Your task to perform on an android device: See recent photos Image 0: 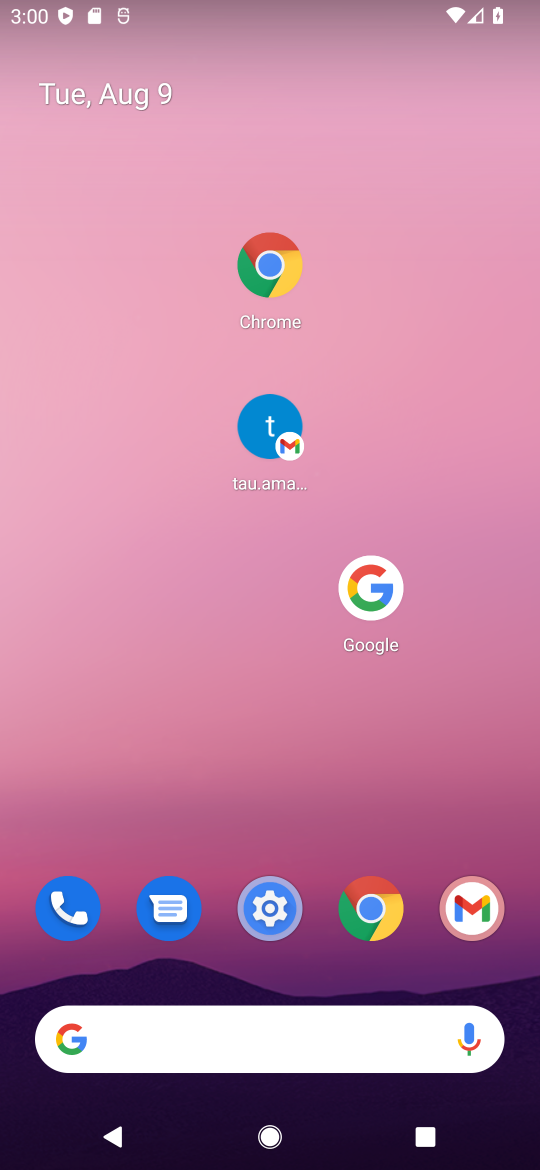
Step 0: drag from (365, 1067) to (345, 257)
Your task to perform on an android device: See recent photos Image 1: 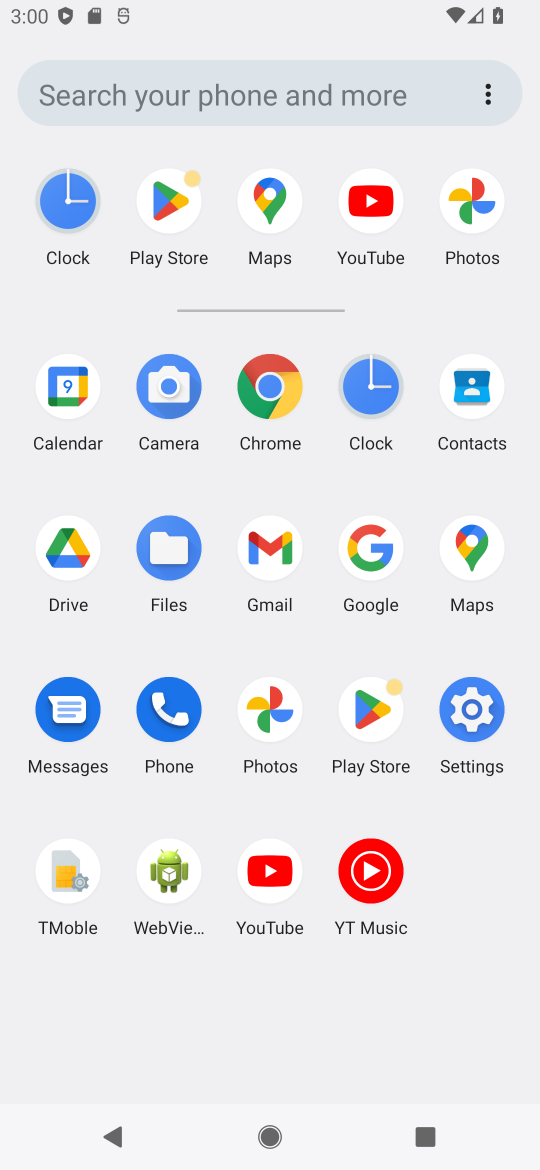
Step 1: click (281, 690)
Your task to perform on an android device: See recent photos Image 2: 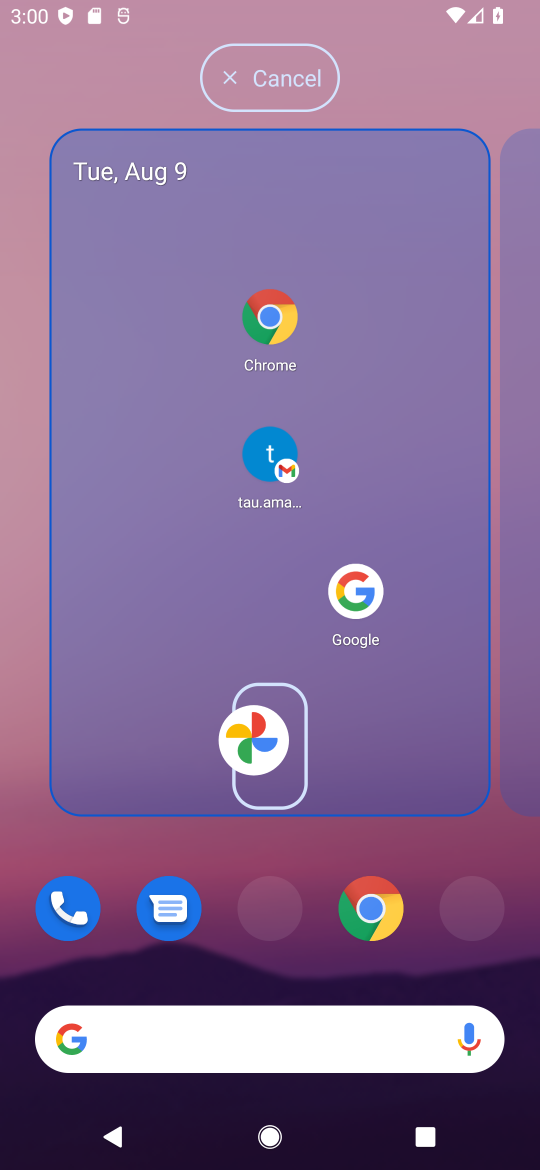
Step 2: click (264, 720)
Your task to perform on an android device: See recent photos Image 3: 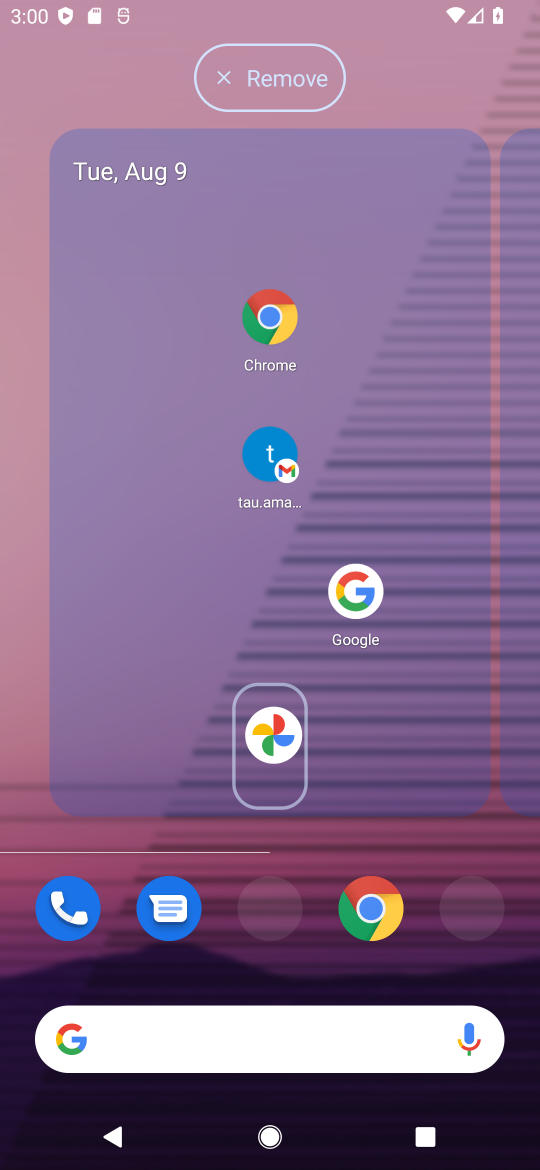
Step 3: click (293, 741)
Your task to perform on an android device: See recent photos Image 4: 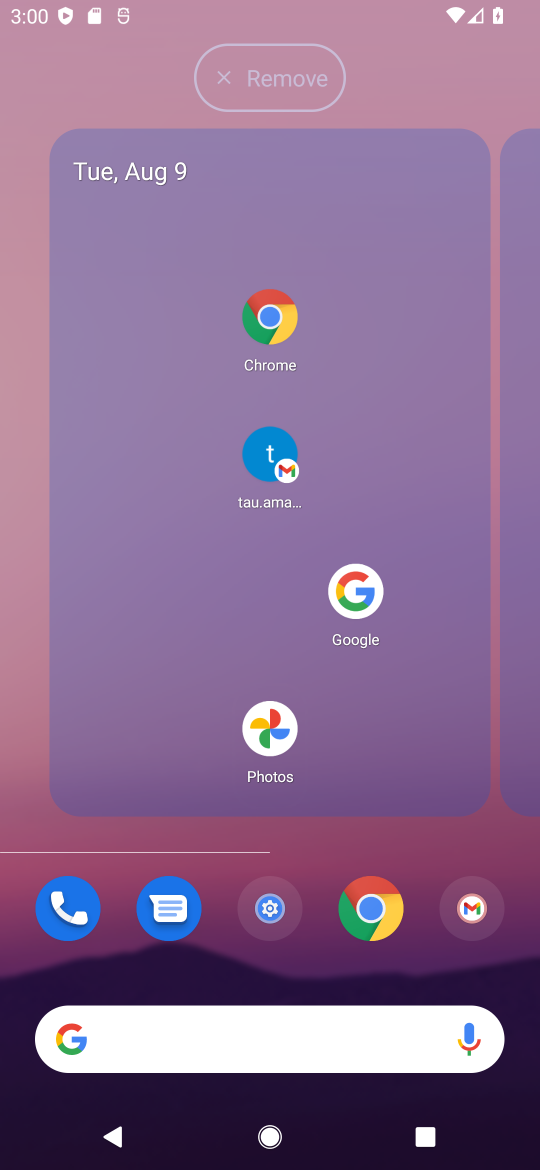
Step 4: drag from (319, 912) to (368, 482)
Your task to perform on an android device: See recent photos Image 5: 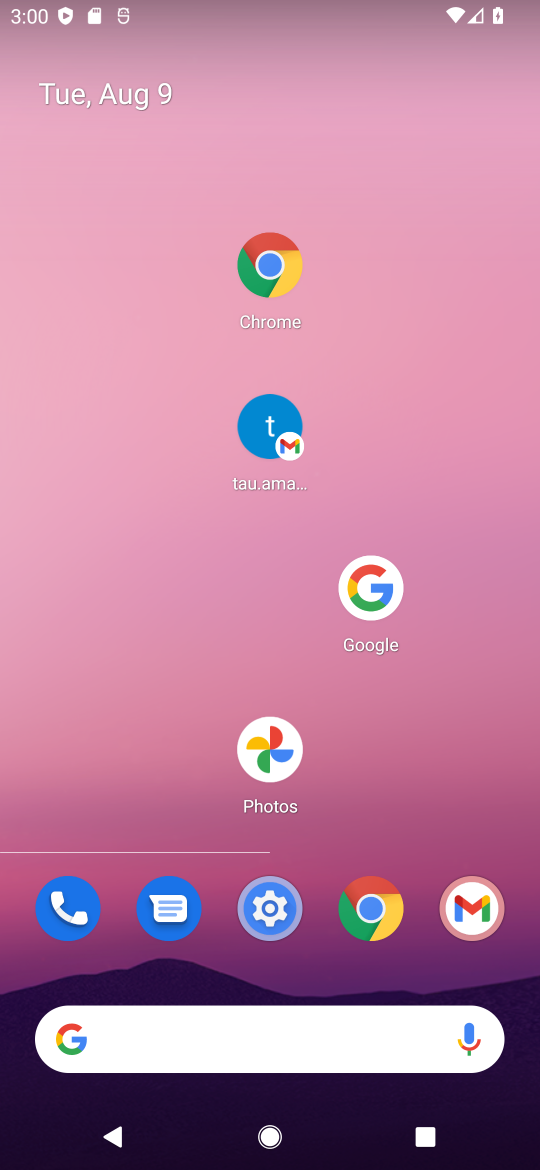
Step 5: drag from (376, 576) to (355, 346)
Your task to perform on an android device: See recent photos Image 6: 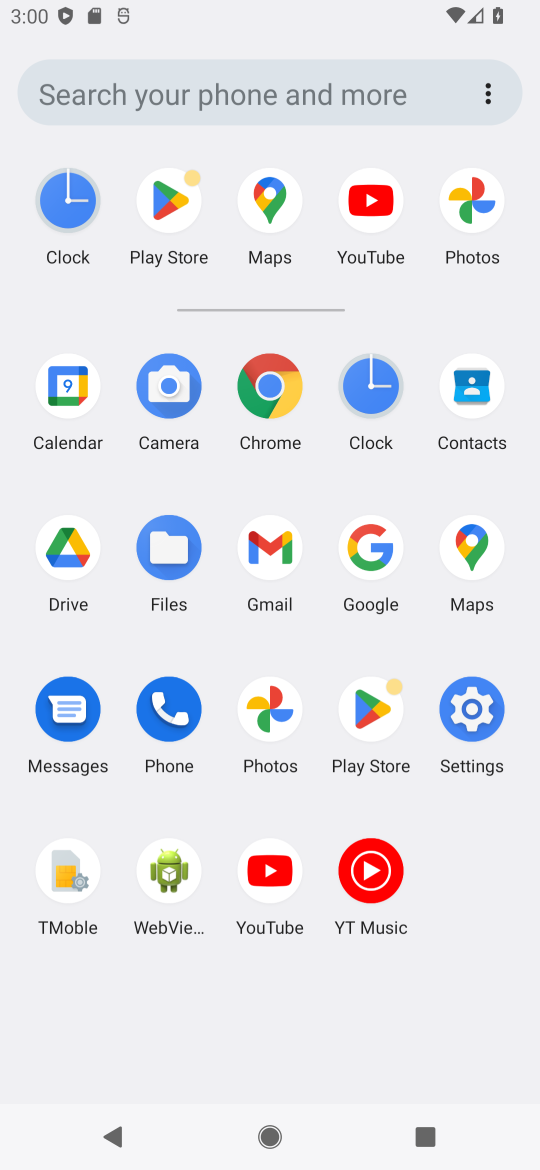
Step 6: drag from (267, 984) to (227, 511)
Your task to perform on an android device: See recent photos Image 7: 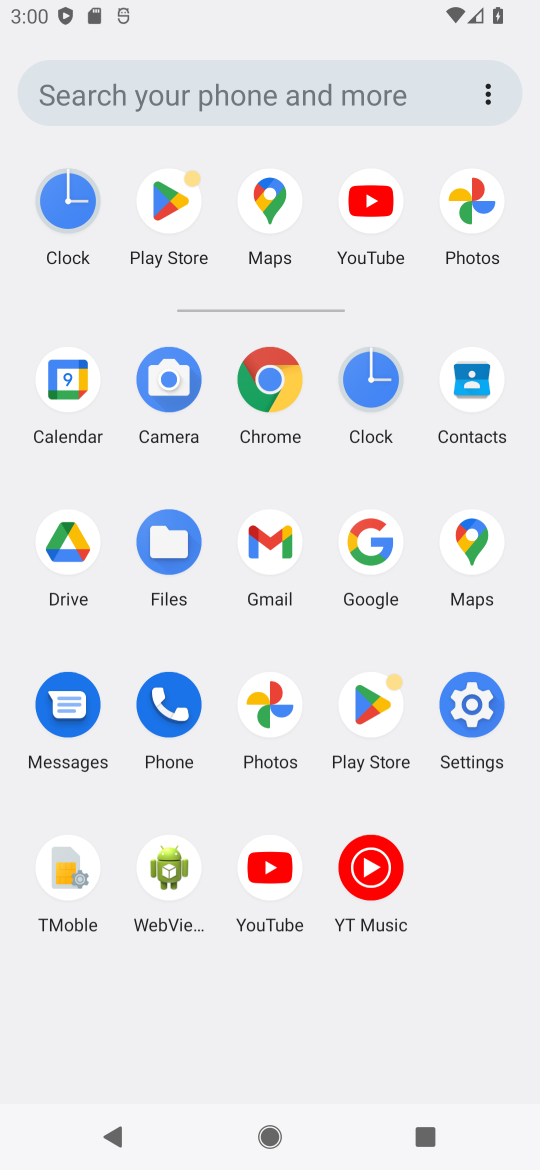
Step 7: click (293, 715)
Your task to perform on an android device: See recent photos Image 8: 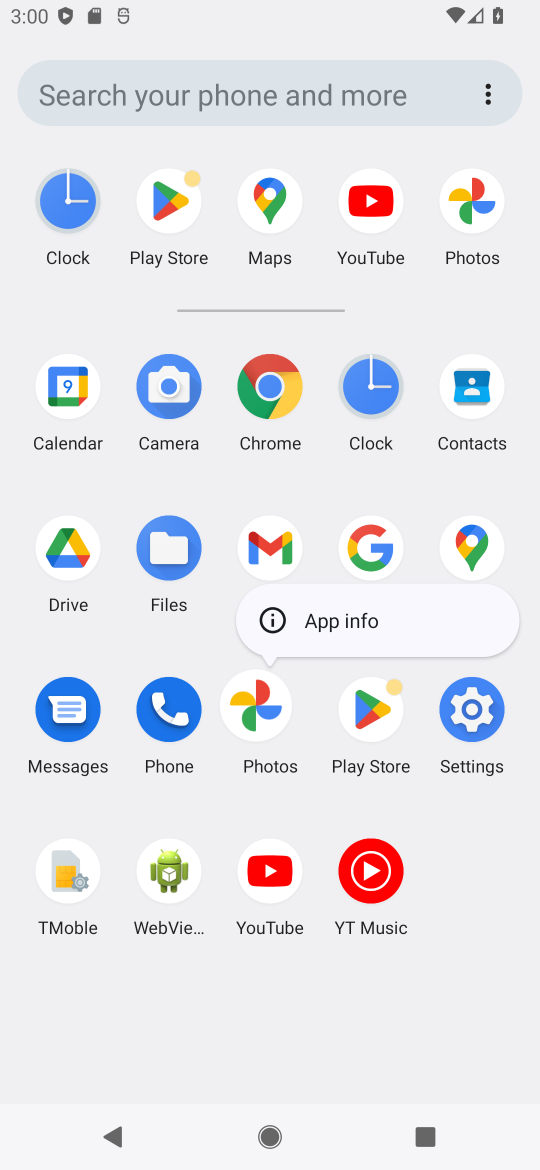
Step 8: click (275, 711)
Your task to perform on an android device: See recent photos Image 9: 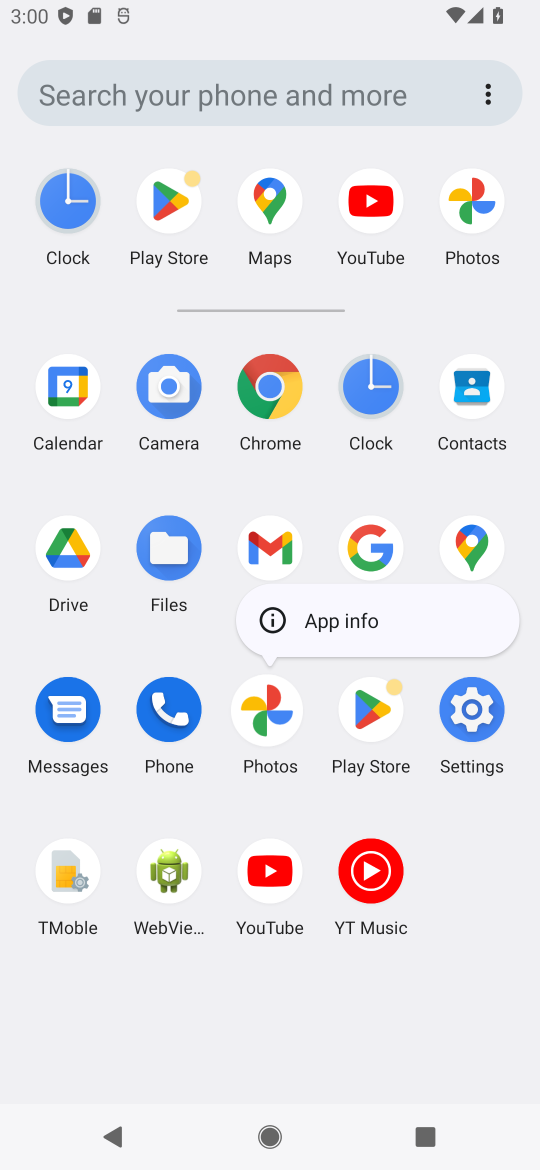
Step 9: click (272, 712)
Your task to perform on an android device: See recent photos Image 10: 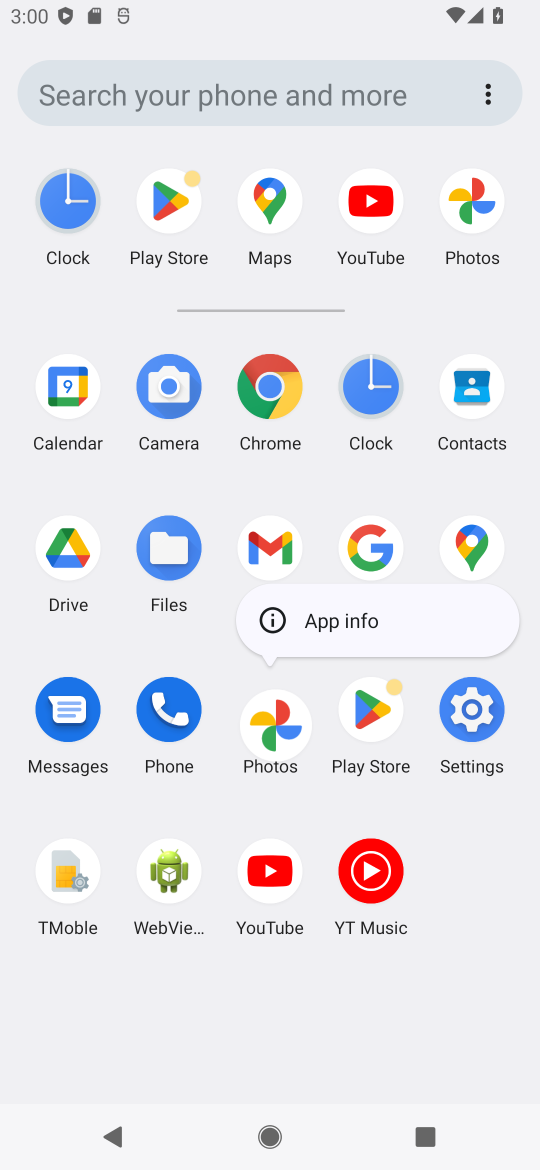
Step 10: click (278, 728)
Your task to perform on an android device: See recent photos Image 11: 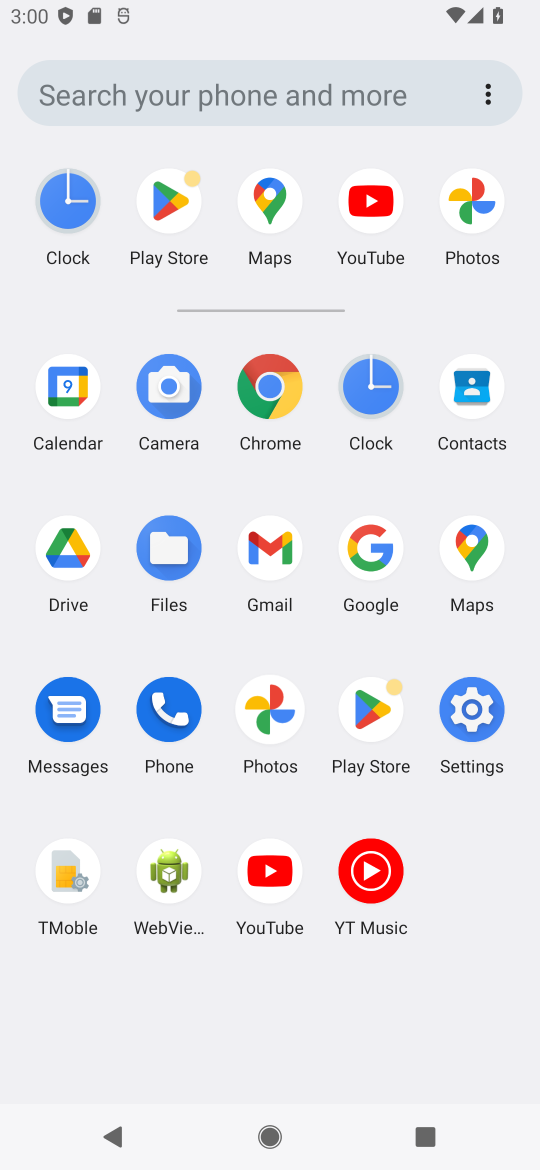
Step 11: click (280, 728)
Your task to perform on an android device: See recent photos Image 12: 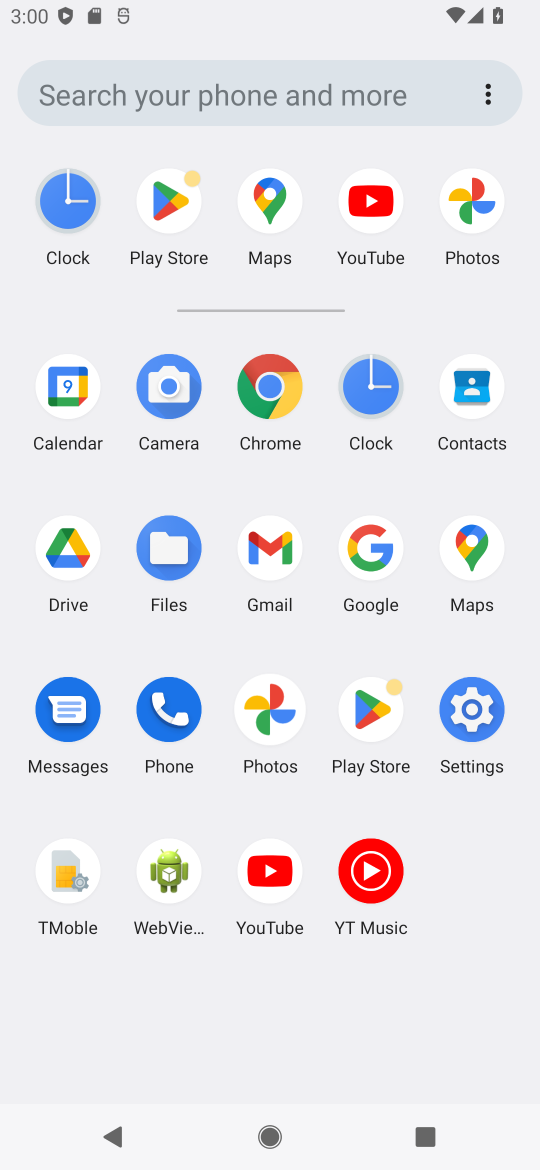
Step 12: click (282, 731)
Your task to perform on an android device: See recent photos Image 13: 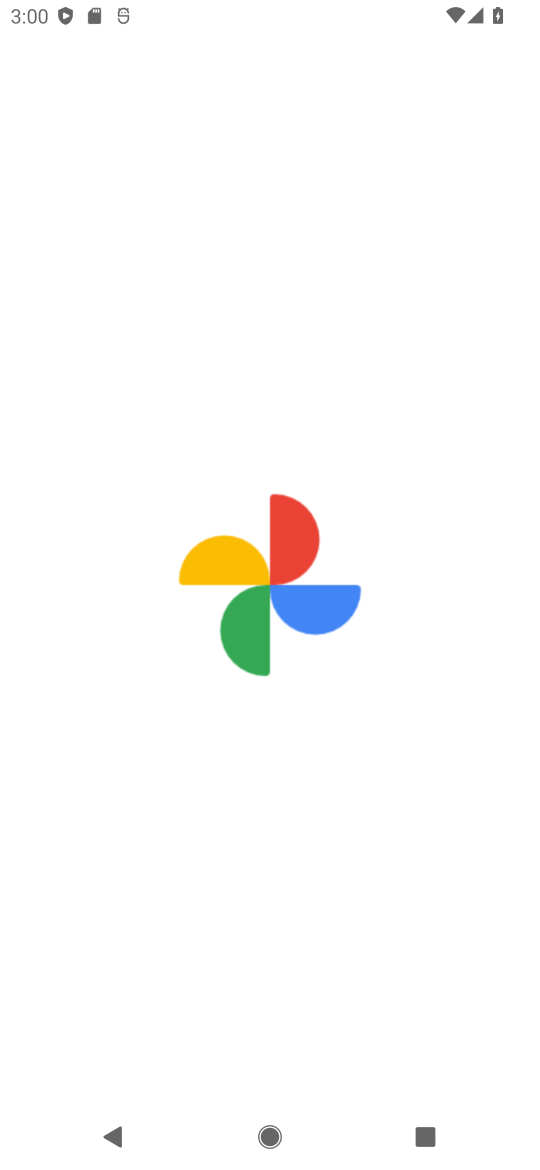
Step 13: click (290, 735)
Your task to perform on an android device: See recent photos Image 14: 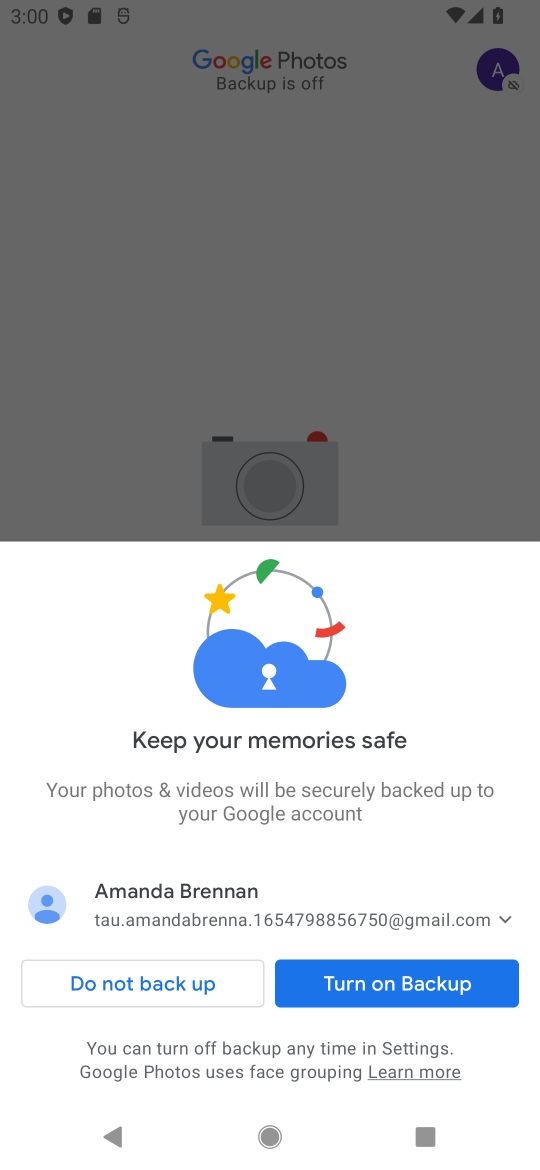
Step 14: task complete